Your task to perform on an android device: turn on airplane mode Image 0: 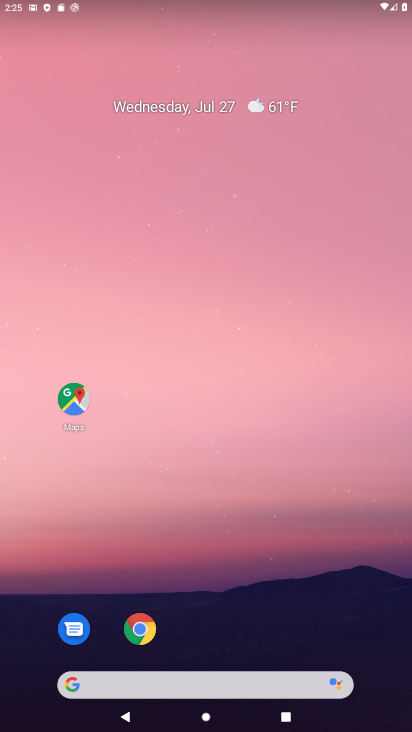
Step 0: drag from (301, 1) to (290, 288)
Your task to perform on an android device: turn on airplane mode Image 1: 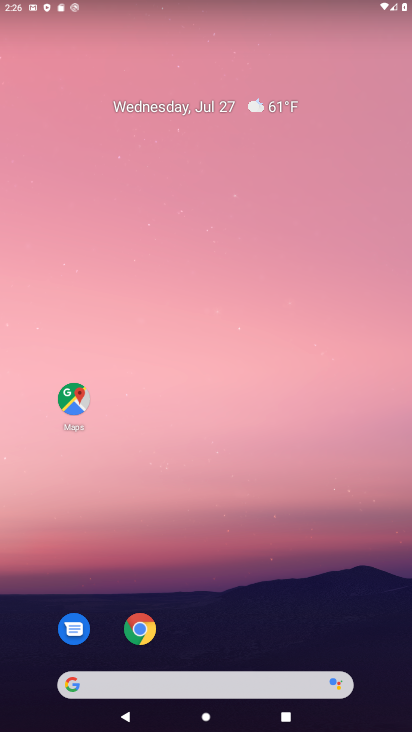
Step 1: drag from (298, 31) to (286, 398)
Your task to perform on an android device: turn on airplane mode Image 2: 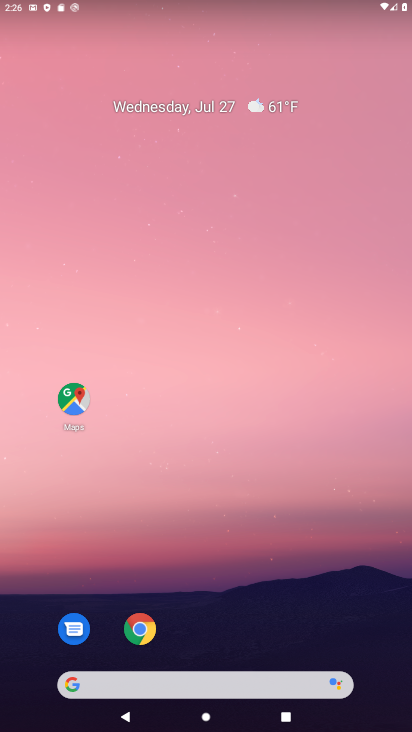
Step 2: drag from (213, 1) to (227, 365)
Your task to perform on an android device: turn on airplane mode Image 3: 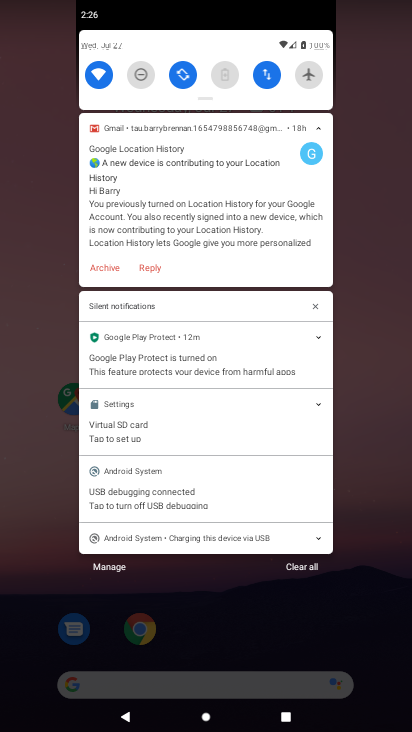
Step 3: click (307, 72)
Your task to perform on an android device: turn on airplane mode Image 4: 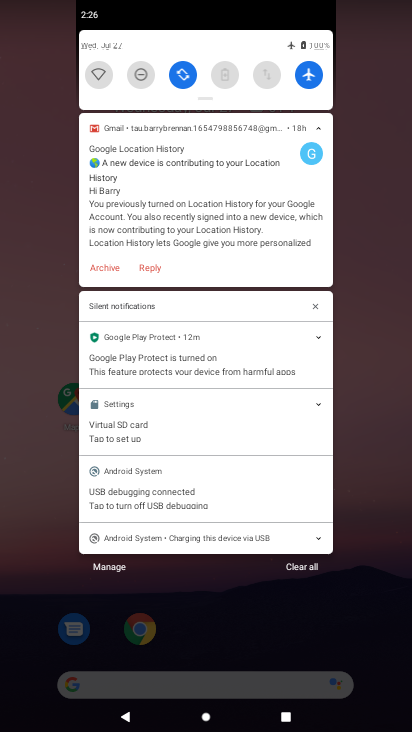
Step 4: task complete